Your task to perform on an android device: Go to Google Image 0: 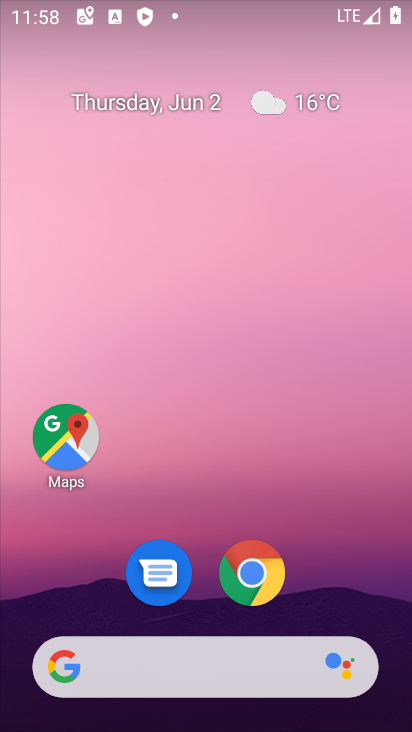
Step 0: drag from (334, 562) to (284, 42)
Your task to perform on an android device: Go to Google Image 1: 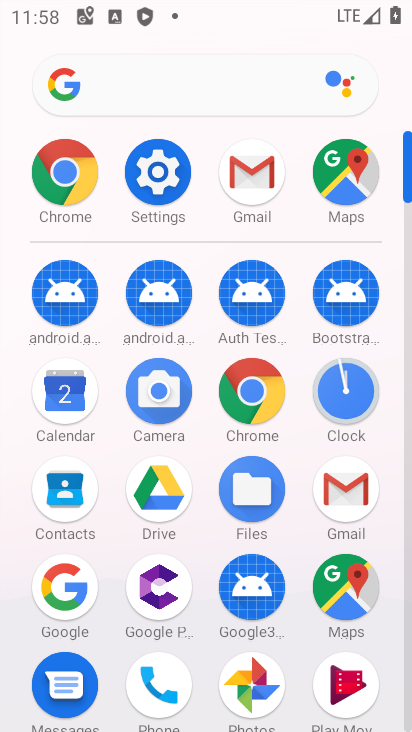
Step 1: click (86, 590)
Your task to perform on an android device: Go to Google Image 2: 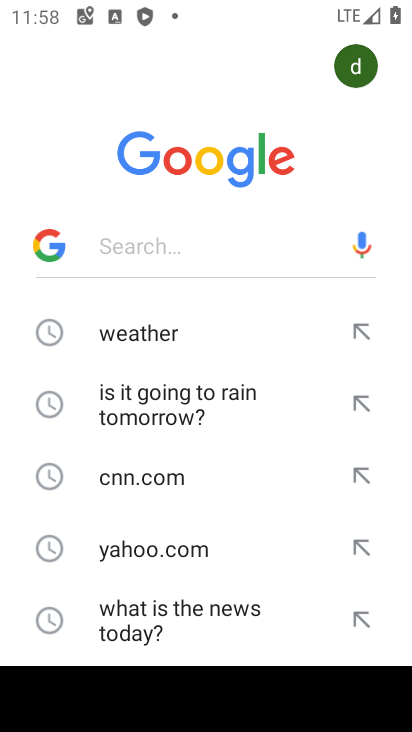
Step 2: task complete